Your task to perform on an android device: turn on sleep mode Image 0: 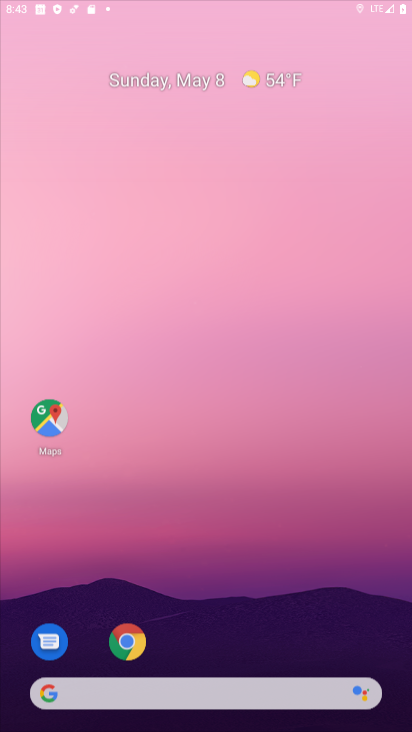
Step 0: drag from (212, 620) to (223, 205)
Your task to perform on an android device: turn on sleep mode Image 1: 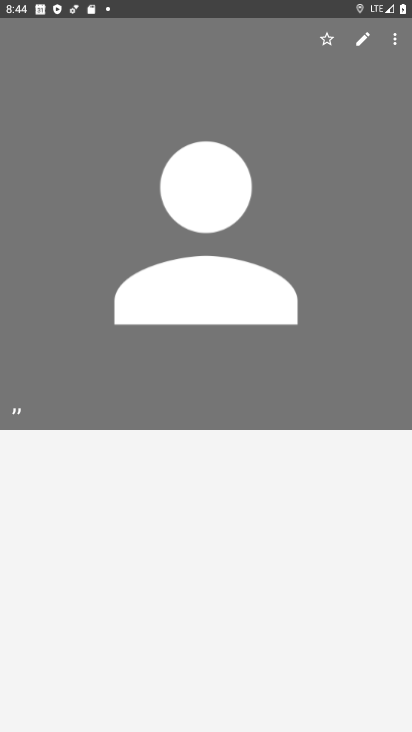
Step 1: press home button
Your task to perform on an android device: turn on sleep mode Image 2: 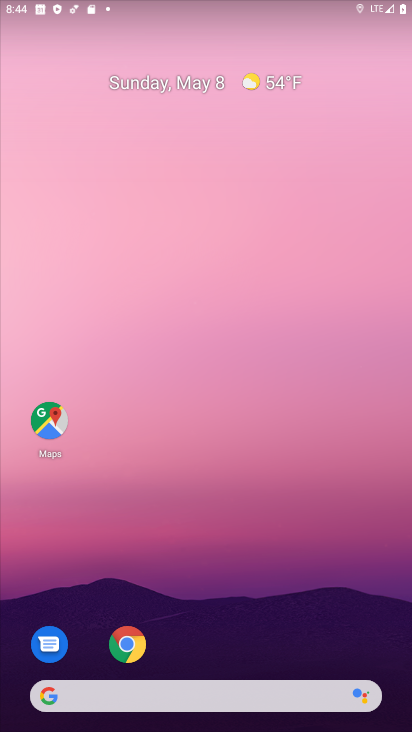
Step 2: drag from (227, 615) to (282, 72)
Your task to perform on an android device: turn on sleep mode Image 3: 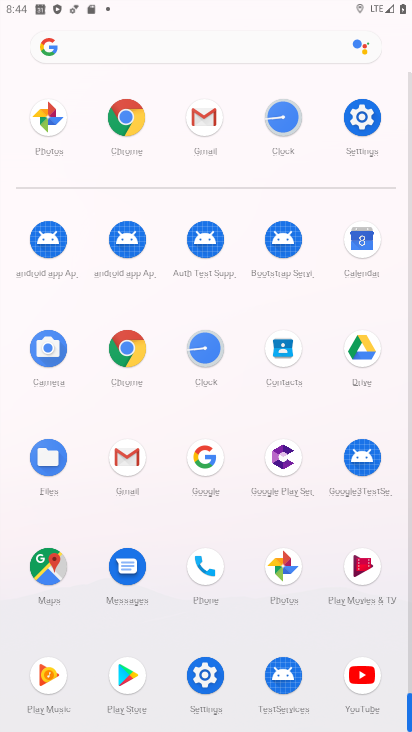
Step 3: click (195, 675)
Your task to perform on an android device: turn on sleep mode Image 4: 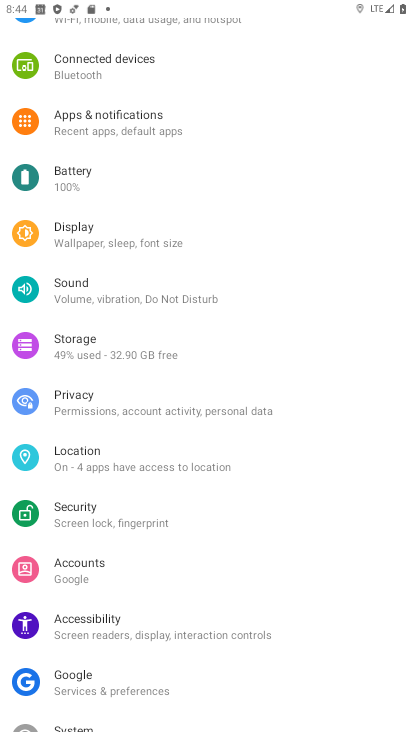
Step 4: click (163, 238)
Your task to perform on an android device: turn on sleep mode Image 5: 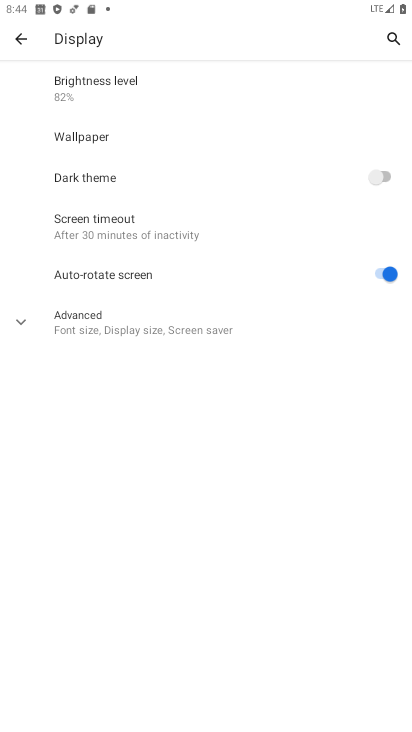
Step 5: click (182, 218)
Your task to perform on an android device: turn on sleep mode Image 6: 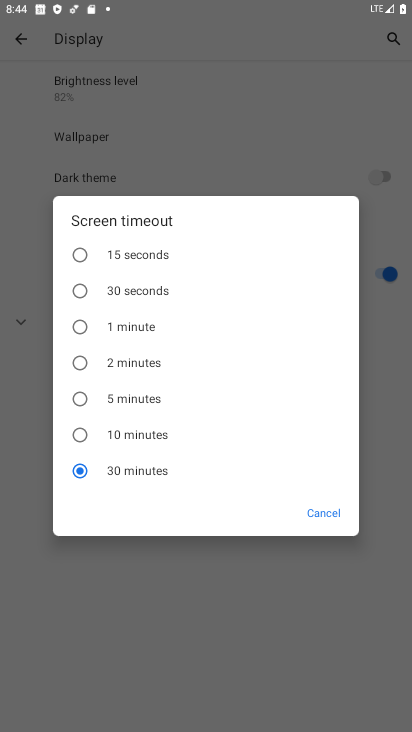
Step 6: click (74, 397)
Your task to perform on an android device: turn on sleep mode Image 7: 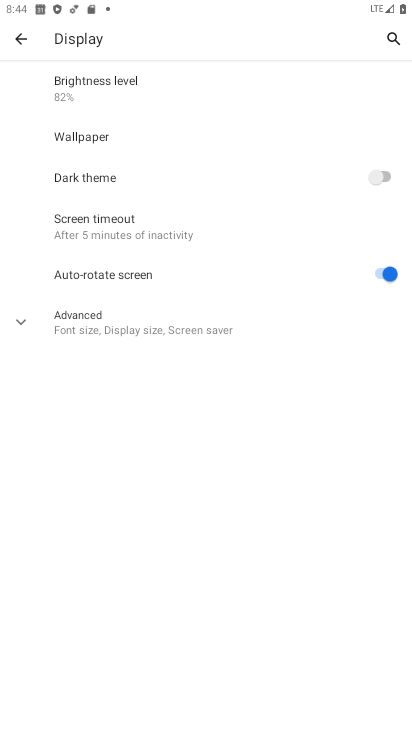
Step 7: task complete